Your task to perform on an android device: stop showing notifications on the lock screen Image 0: 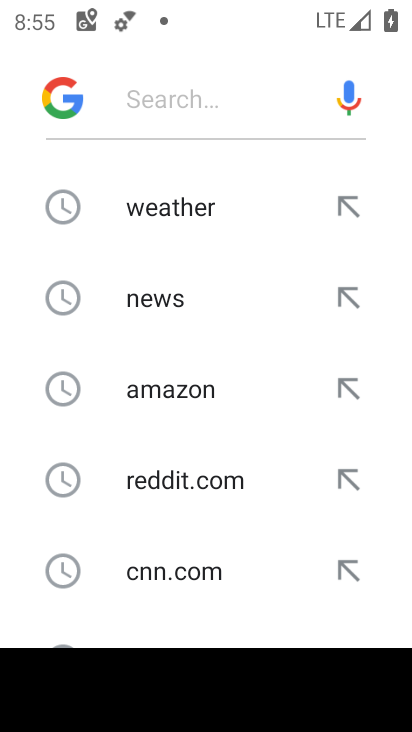
Step 0: press home button
Your task to perform on an android device: stop showing notifications on the lock screen Image 1: 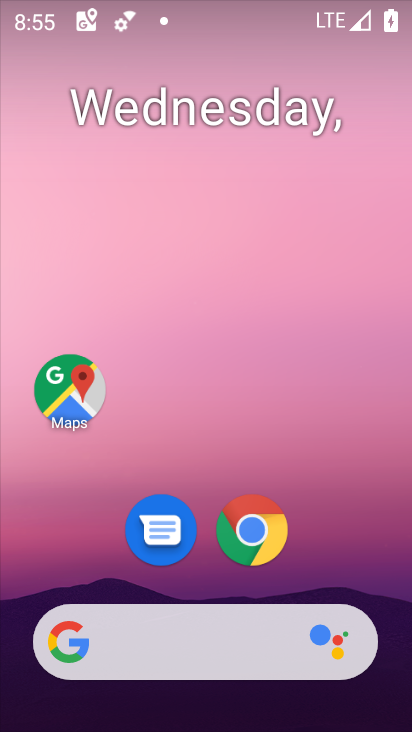
Step 1: drag from (386, 625) to (366, 85)
Your task to perform on an android device: stop showing notifications on the lock screen Image 2: 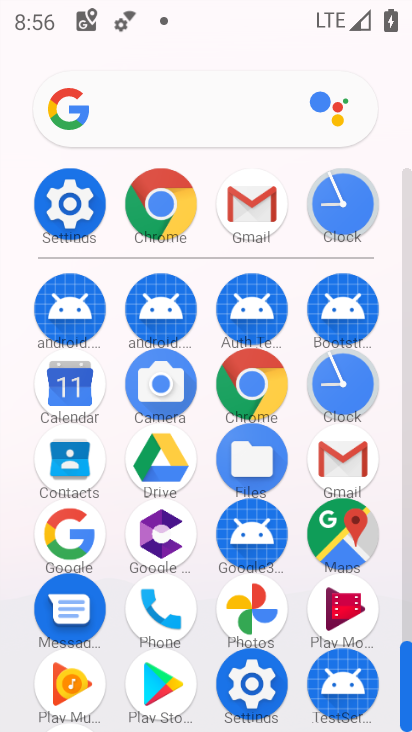
Step 2: click (269, 674)
Your task to perform on an android device: stop showing notifications on the lock screen Image 3: 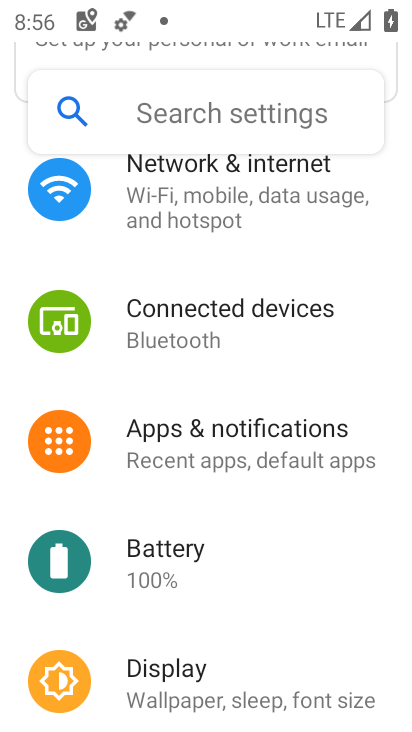
Step 3: click (202, 478)
Your task to perform on an android device: stop showing notifications on the lock screen Image 4: 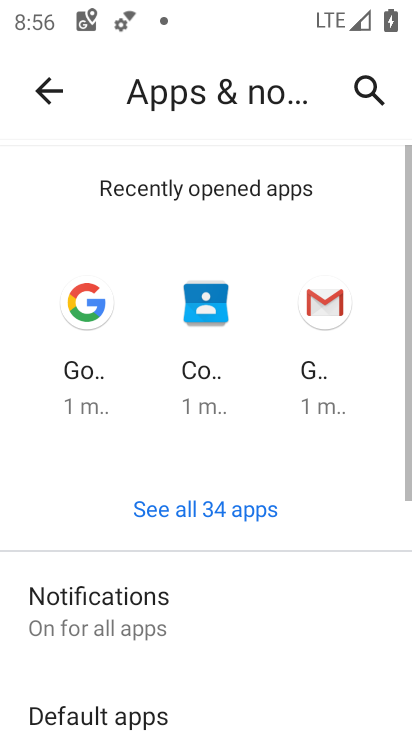
Step 4: click (234, 634)
Your task to perform on an android device: stop showing notifications on the lock screen Image 5: 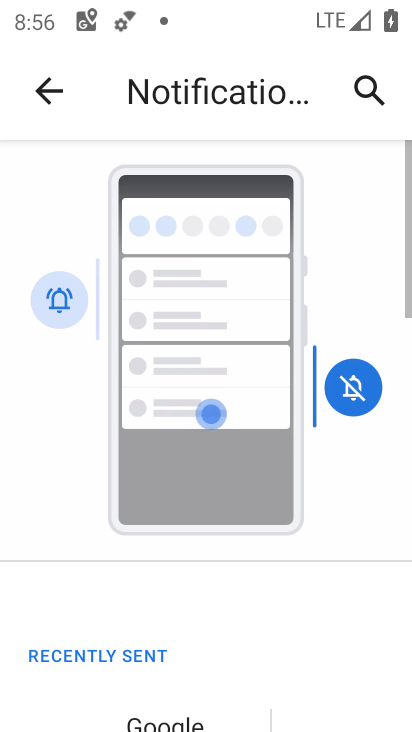
Step 5: drag from (207, 637) to (133, 86)
Your task to perform on an android device: stop showing notifications on the lock screen Image 6: 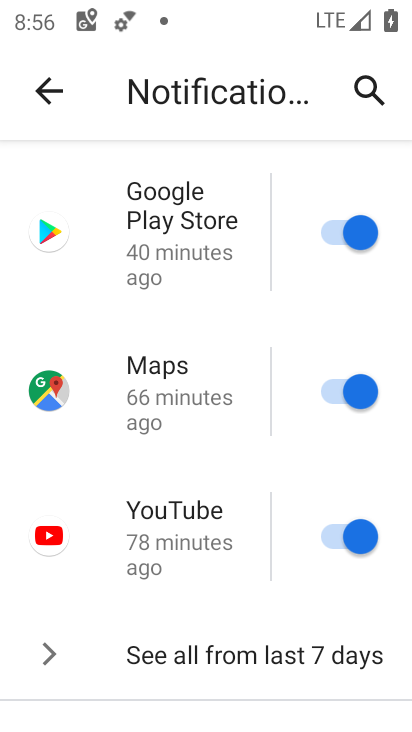
Step 6: drag from (204, 687) to (230, 172)
Your task to perform on an android device: stop showing notifications on the lock screen Image 7: 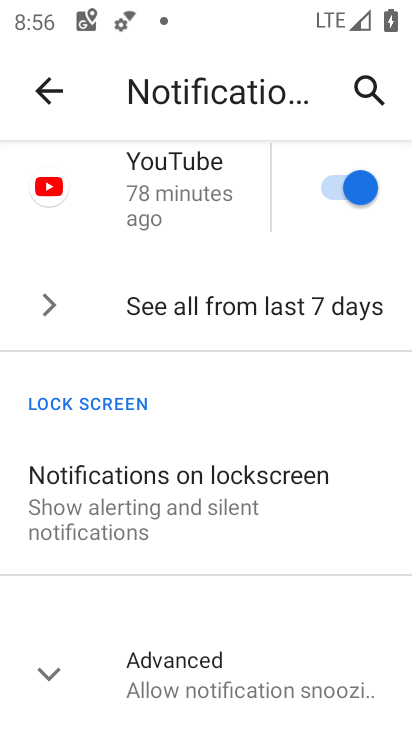
Step 7: click (259, 522)
Your task to perform on an android device: stop showing notifications on the lock screen Image 8: 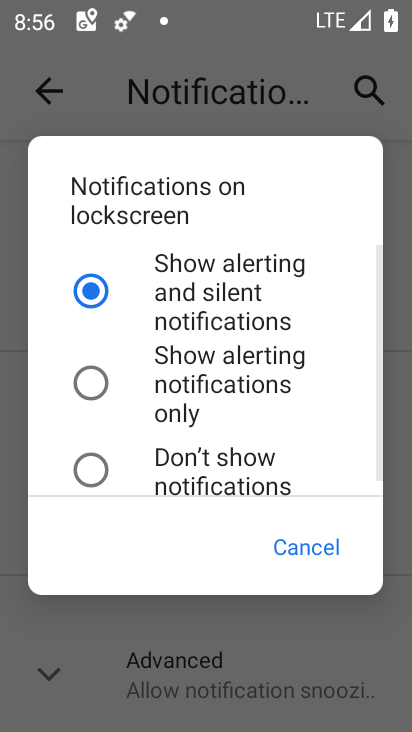
Step 8: click (247, 474)
Your task to perform on an android device: stop showing notifications on the lock screen Image 9: 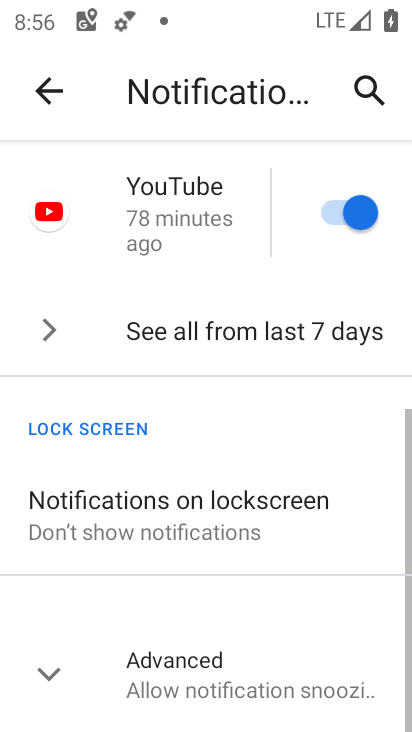
Step 9: task complete